Your task to perform on an android device: Open calendar and show me the first week of next month Image 0: 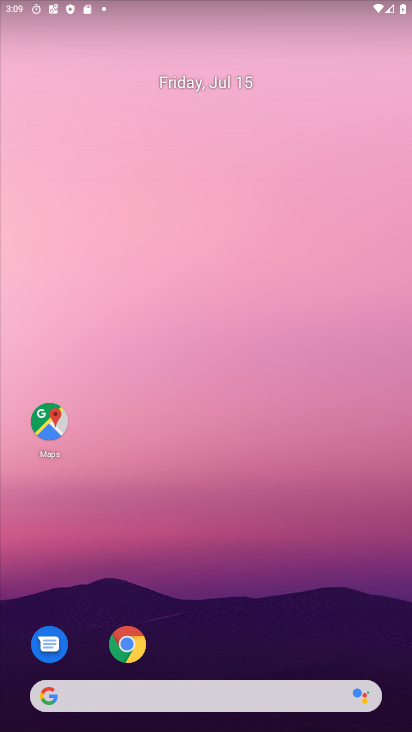
Step 0: drag from (219, 643) to (301, 70)
Your task to perform on an android device: Open calendar and show me the first week of next month Image 1: 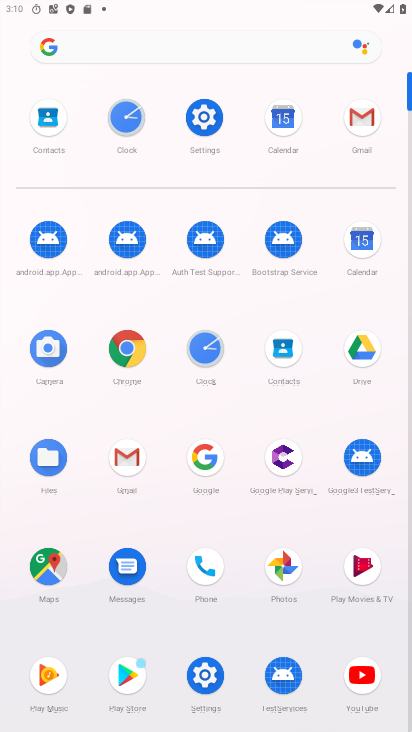
Step 1: click (377, 229)
Your task to perform on an android device: Open calendar and show me the first week of next month Image 2: 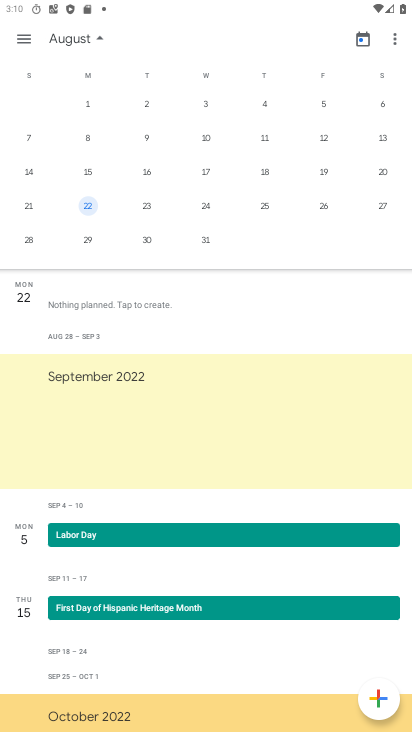
Step 2: click (78, 96)
Your task to perform on an android device: Open calendar and show me the first week of next month Image 3: 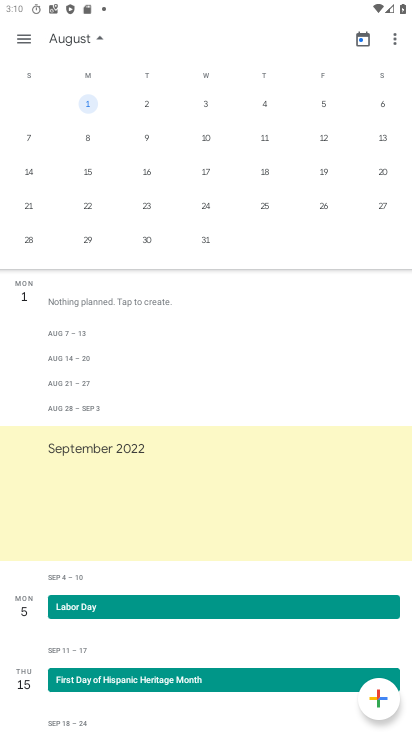
Step 3: task complete